Your task to perform on an android device: toggle translation in the chrome app Image 0: 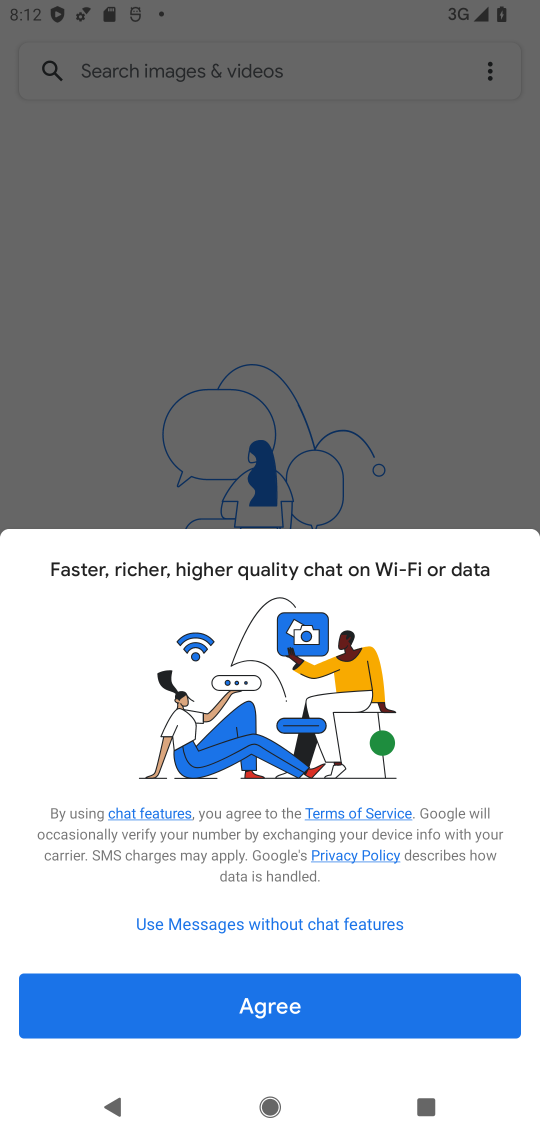
Step 0: press home button
Your task to perform on an android device: toggle translation in the chrome app Image 1: 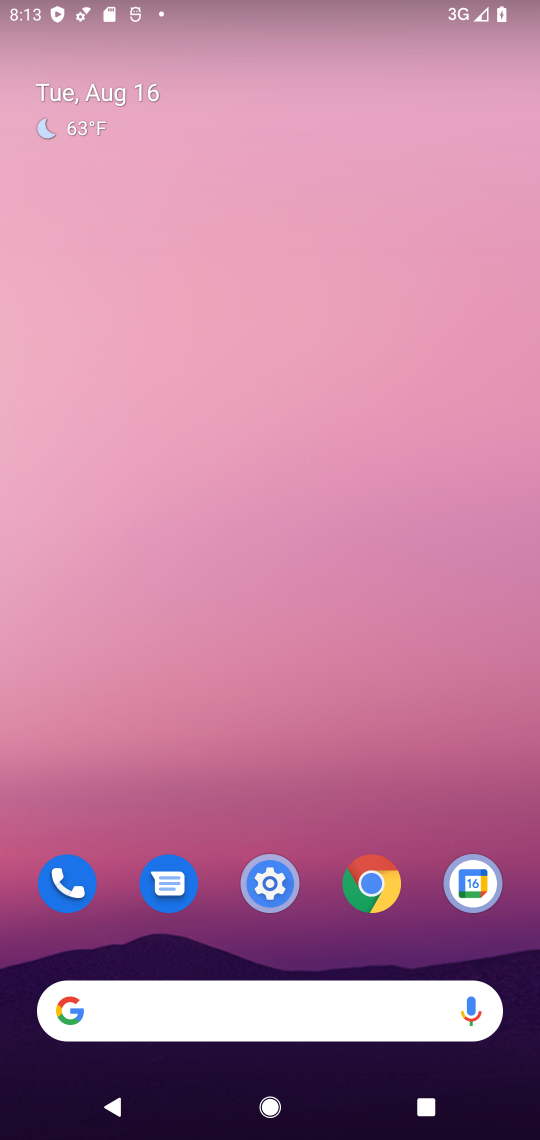
Step 1: click (394, 885)
Your task to perform on an android device: toggle translation in the chrome app Image 2: 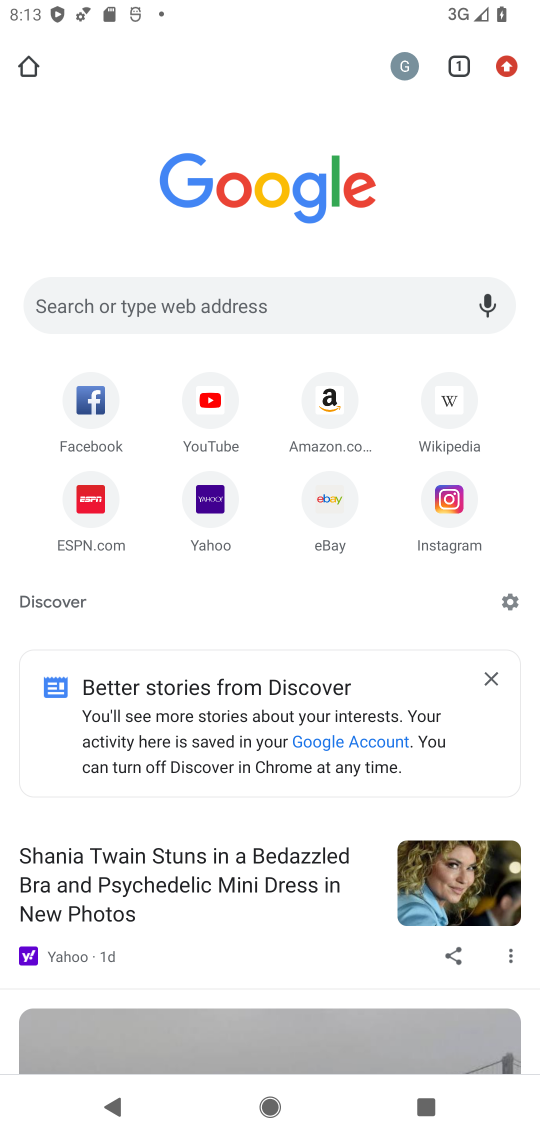
Step 2: click (505, 71)
Your task to perform on an android device: toggle translation in the chrome app Image 3: 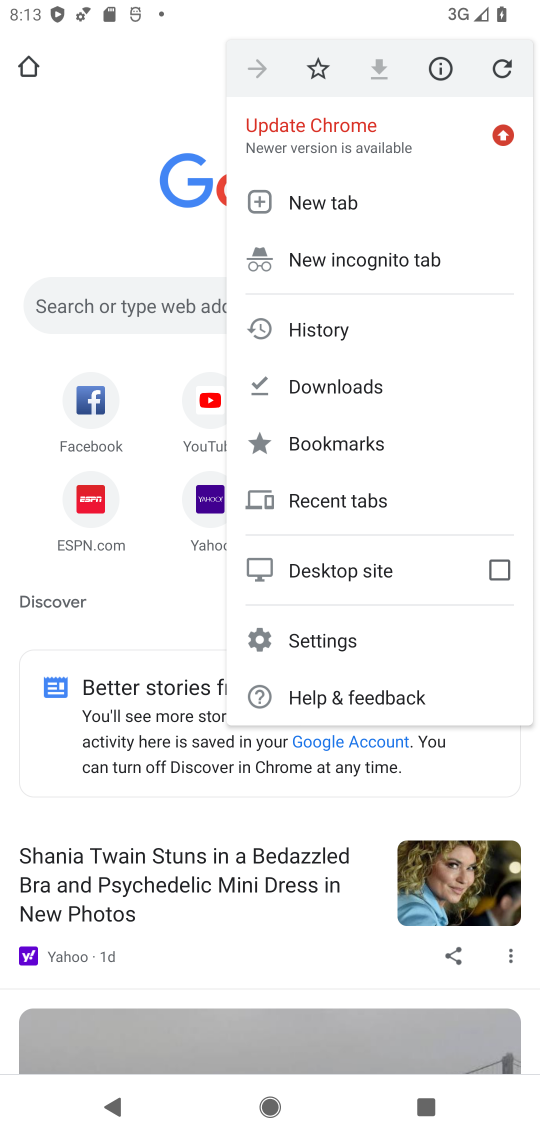
Step 3: click (323, 641)
Your task to perform on an android device: toggle translation in the chrome app Image 4: 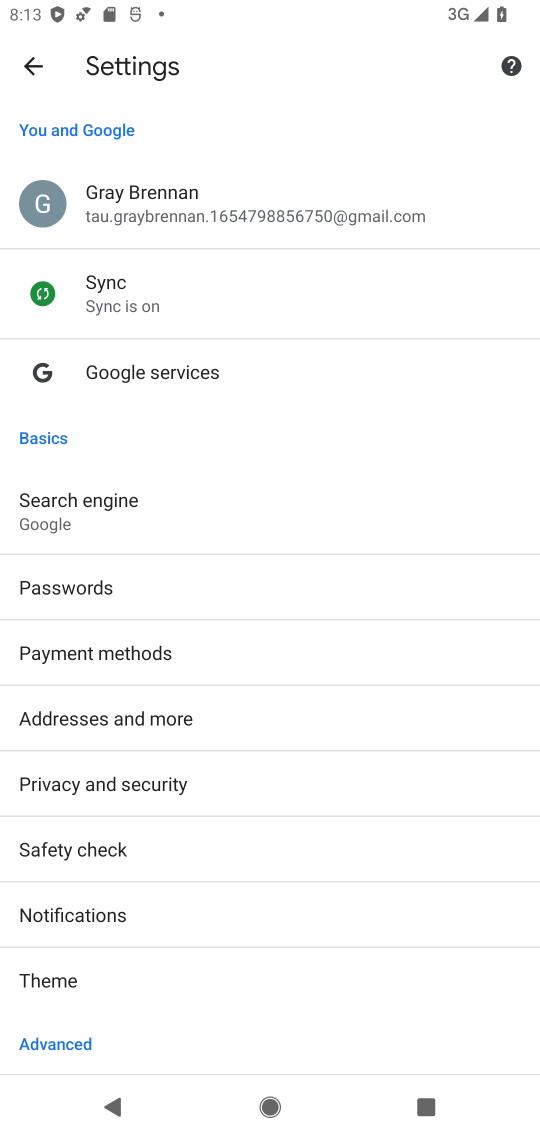
Step 4: drag from (222, 1001) to (189, 715)
Your task to perform on an android device: toggle translation in the chrome app Image 5: 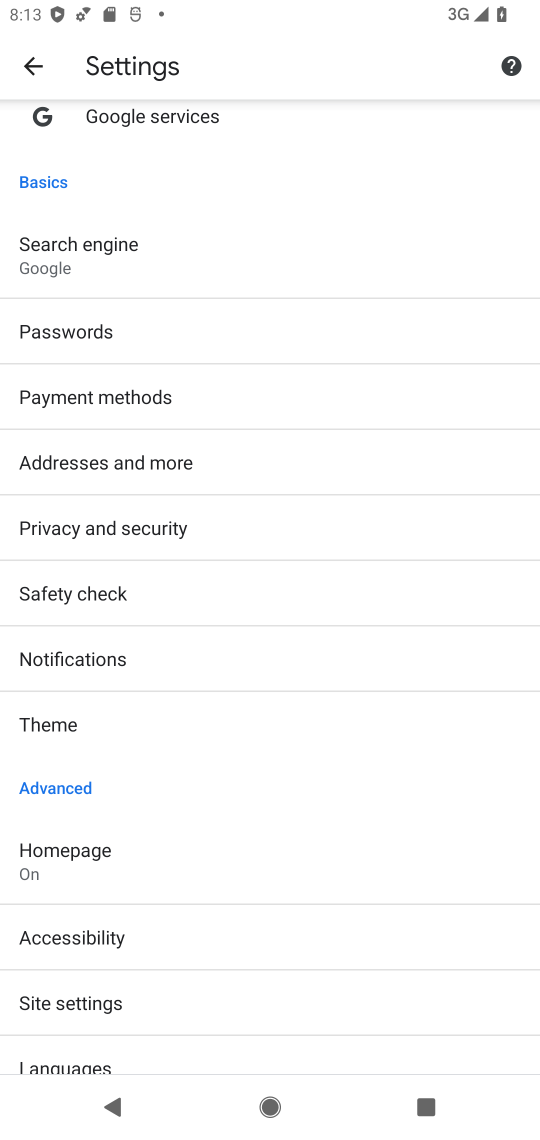
Step 5: drag from (257, 1034) to (218, 736)
Your task to perform on an android device: toggle translation in the chrome app Image 6: 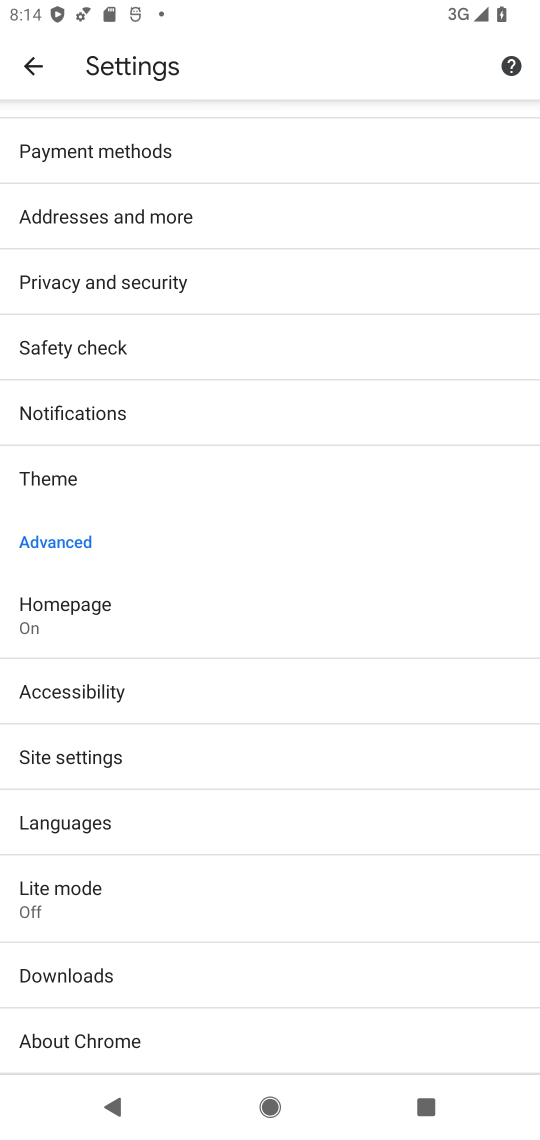
Step 6: click (131, 816)
Your task to perform on an android device: toggle translation in the chrome app Image 7: 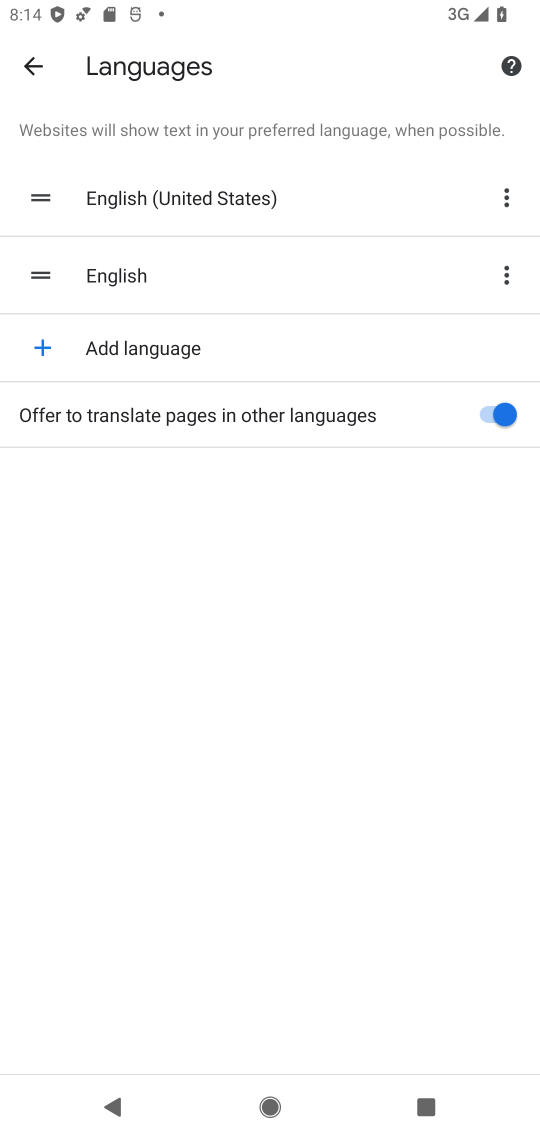
Step 7: click (491, 411)
Your task to perform on an android device: toggle translation in the chrome app Image 8: 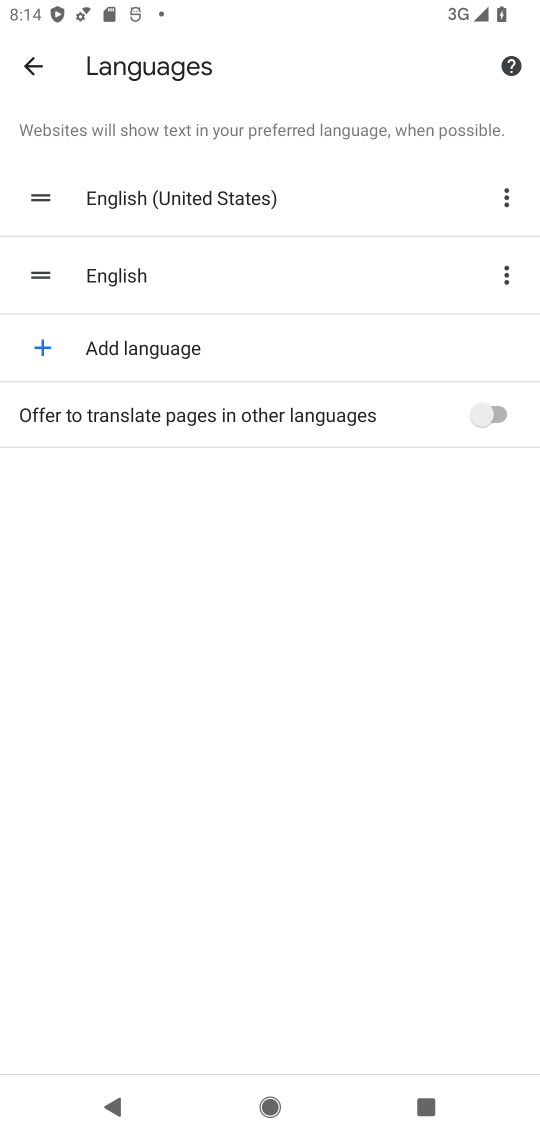
Step 8: task complete